Your task to perform on an android device: delete a single message in the gmail app Image 0: 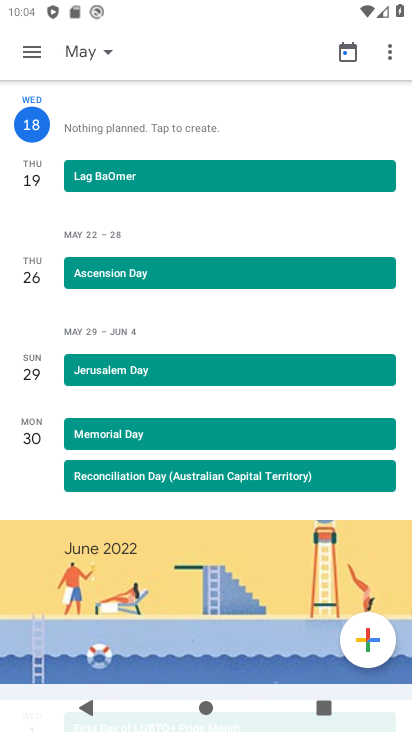
Step 0: press home button
Your task to perform on an android device: delete a single message in the gmail app Image 1: 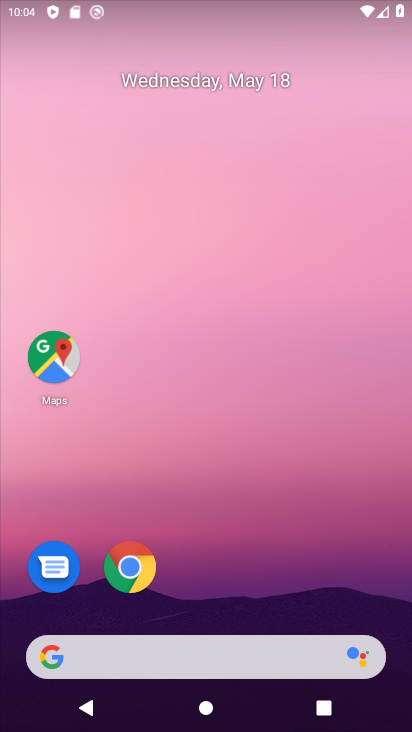
Step 1: drag from (248, 662) to (196, 123)
Your task to perform on an android device: delete a single message in the gmail app Image 2: 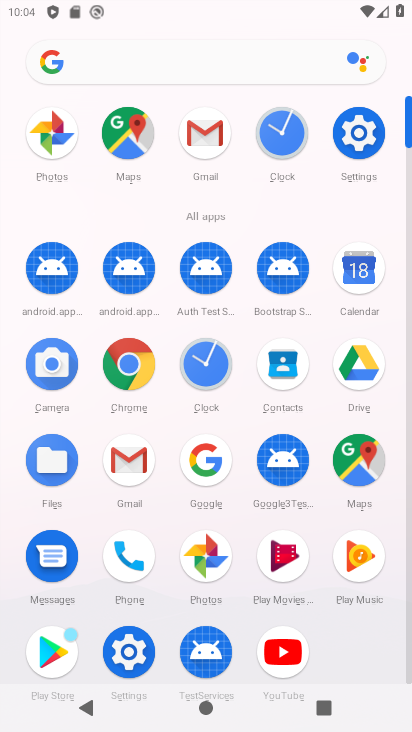
Step 2: click (137, 459)
Your task to perform on an android device: delete a single message in the gmail app Image 3: 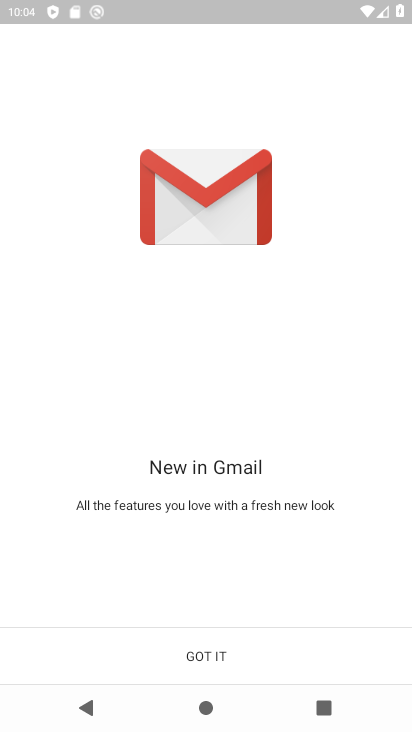
Step 3: click (215, 644)
Your task to perform on an android device: delete a single message in the gmail app Image 4: 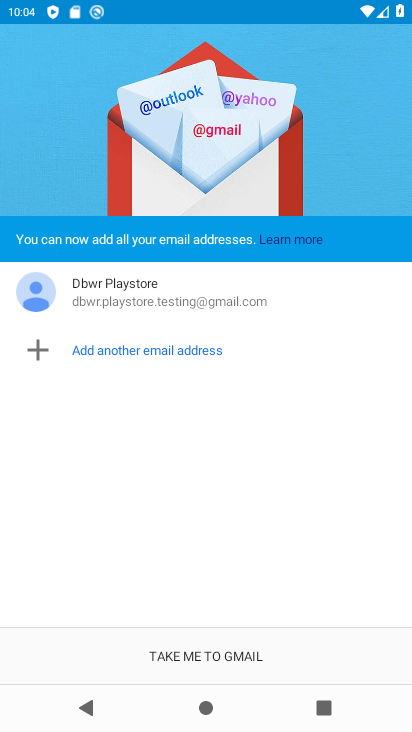
Step 4: click (234, 660)
Your task to perform on an android device: delete a single message in the gmail app Image 5: 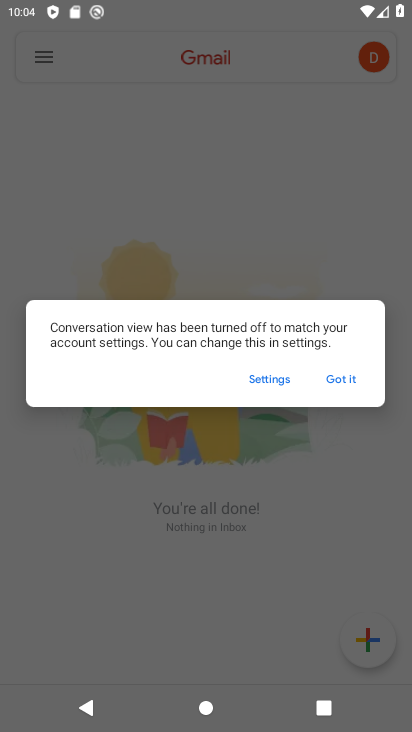
Step 5: click (335, 389)
Your task to perform on an android device: delete a single message in the gmail app Image 6: 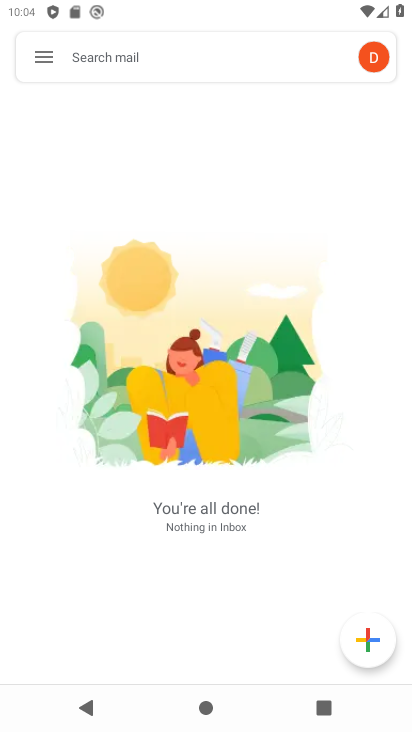
Step 6: task complete